Your task to perform on an android device: Open the Play Movies app and select the watchlist tab. Image 0: 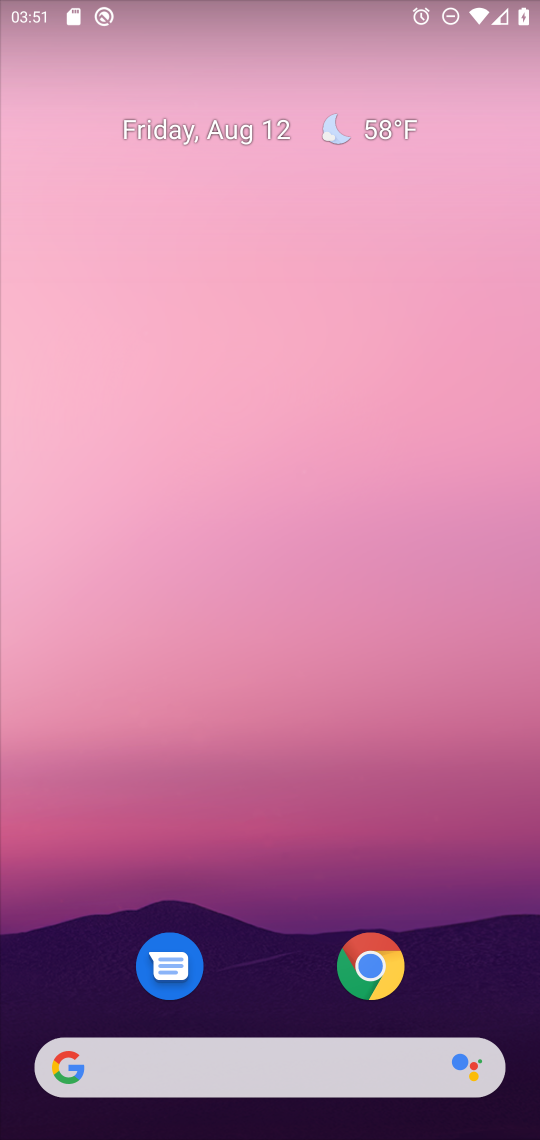
Step 0: drag from (268, 856) to (367, 131)
Your task to perform on an android device: Open the Play Movies app and select the watchlist tab. Image 1: 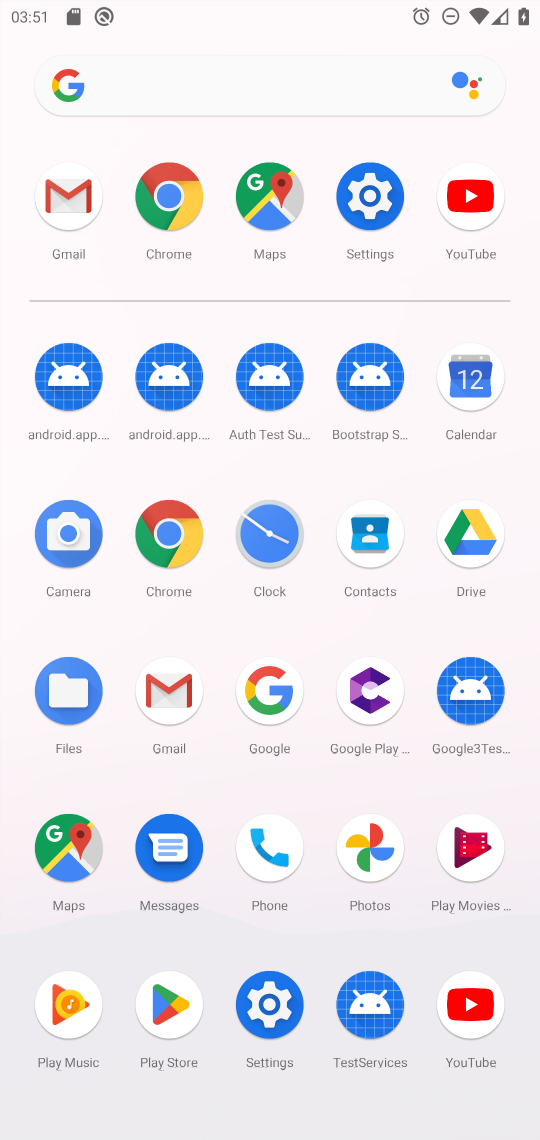
Step 1: click (475, 861)
Your task to perform on an android device: Open the Play Movies app and select the watchlist tab. Image 2: 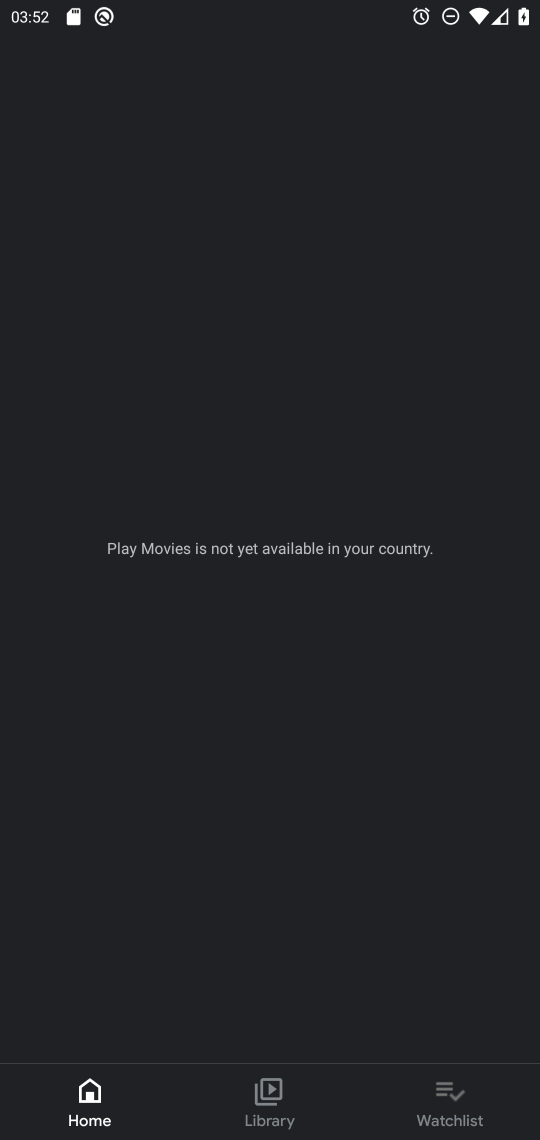
Step 2: click (452, 1114)
Your task to perform on an android device: Open the Play Movies app and select the watchlist tab. Image 3: 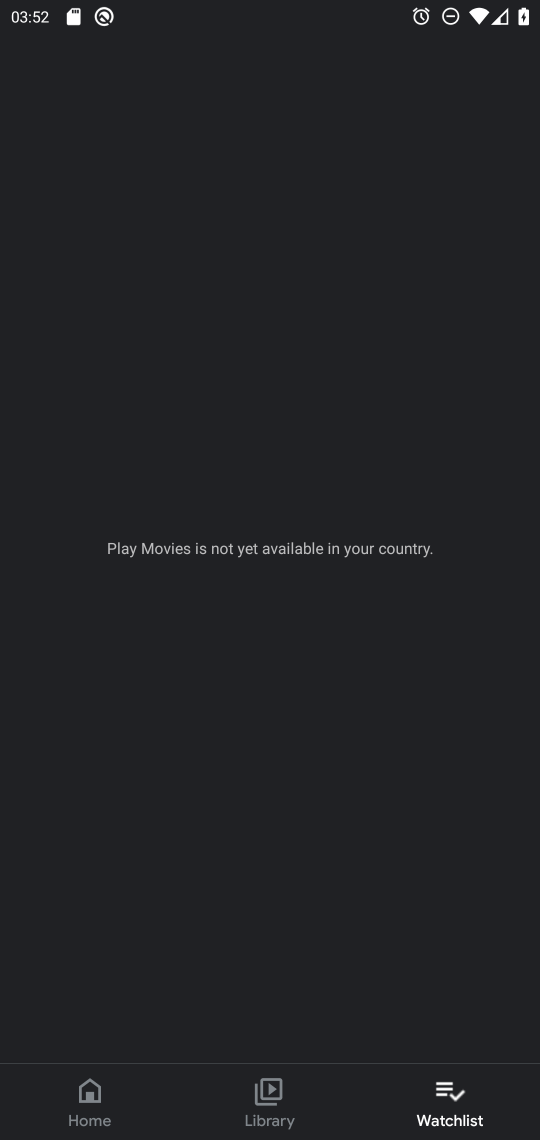
Step 3: task complete